Your task to perform on an android device: toggle translation in the chrome app Image 0: 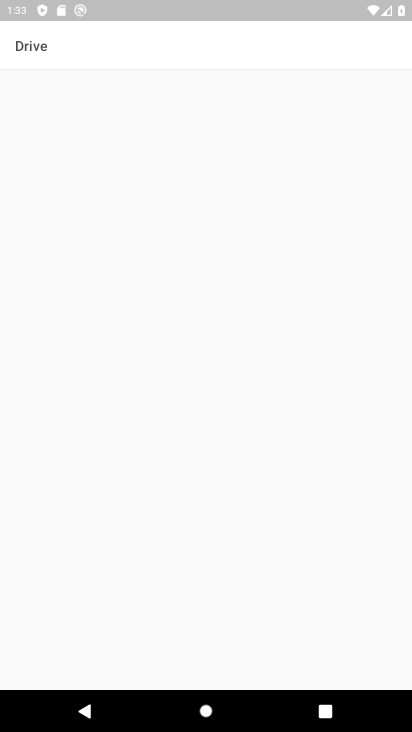
Step 0: press home button
Your task to perform on an android device: toggle translation in the chrome app Image 1: 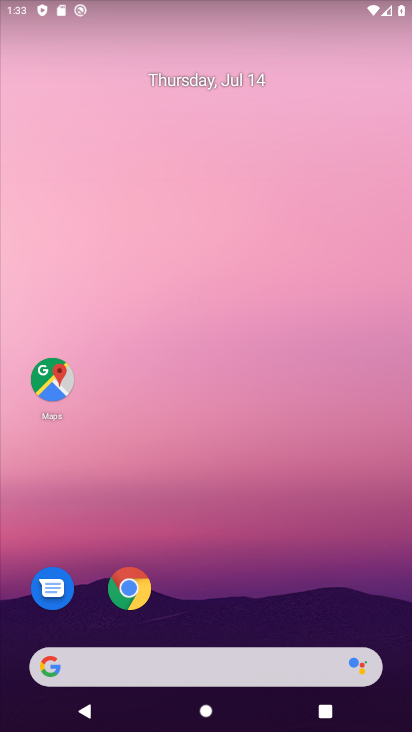
Step 1: drag from (213, 590) to (256, 190)
Your task to perform on an android device: toggle translation in the chrome app Image 2: 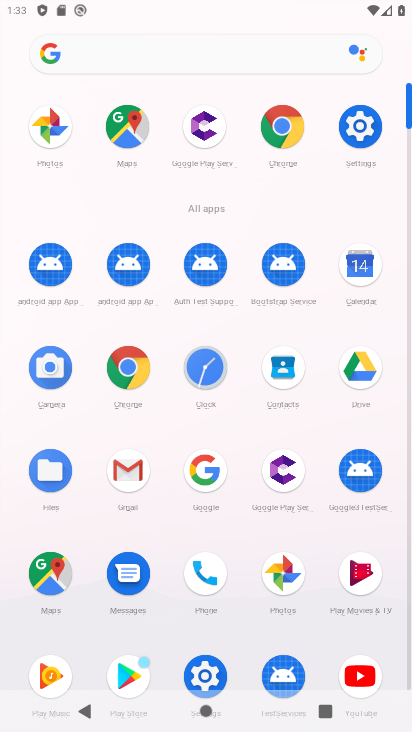
Step 2: click (123, 374)
Your task to perform on an android device: toggle translation in the chrome app Image 3: 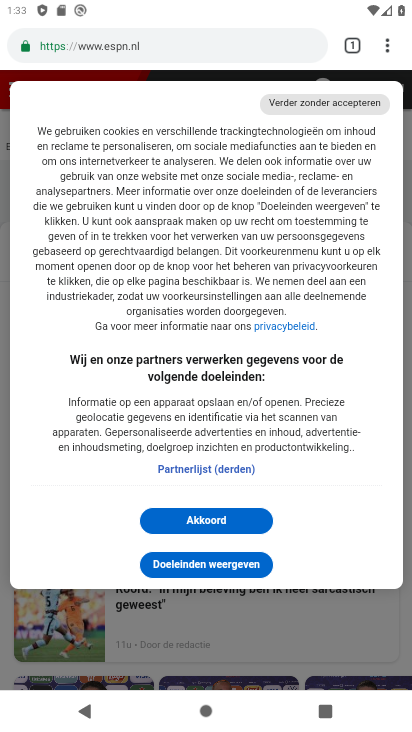
Step 3: drag from (388, 48) to (272, 539)
Your task to perform on an android device: toggle translation in the chrome app Image 4: 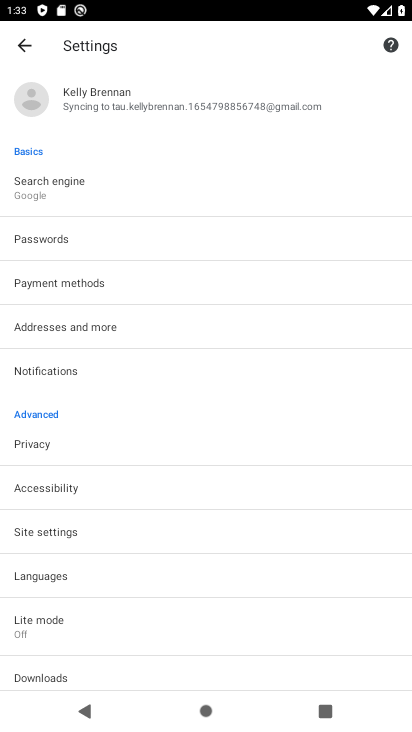
Step 4: click (60, 580)
Your task to perform on an android device: toggle translation in the chrome app Image 5: 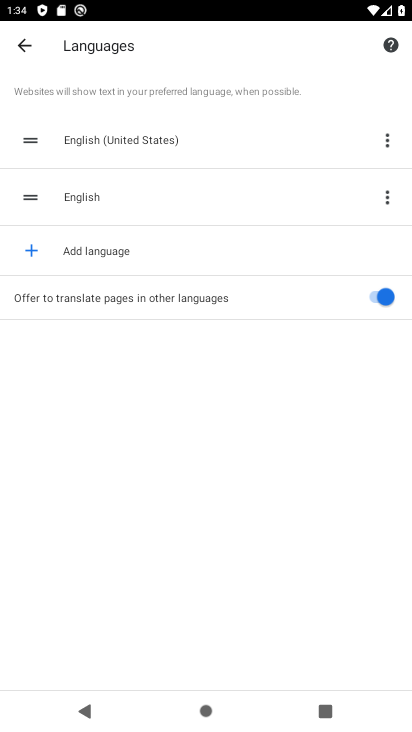
Step 5: click (372, 293)
Your task to perform on an android device: toggle translation in the chrome app Image 6: 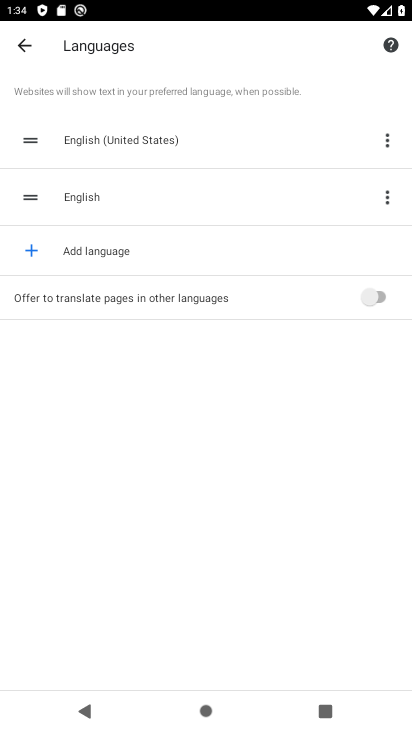
Step 6: task complete